Your task to perform on an android device: open the mobile data screen to see how much data has been used Image 0: 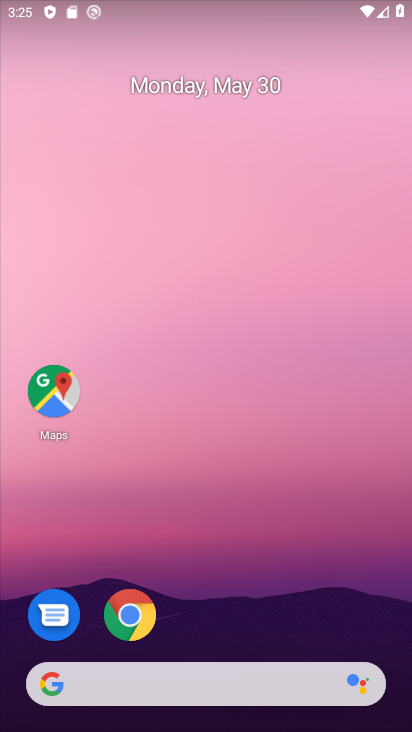
Step 0: drag from (257, 615) to (216, 147)
Your task to perform on an android device: open the mobile data screen to see how much data has been used Image 1: 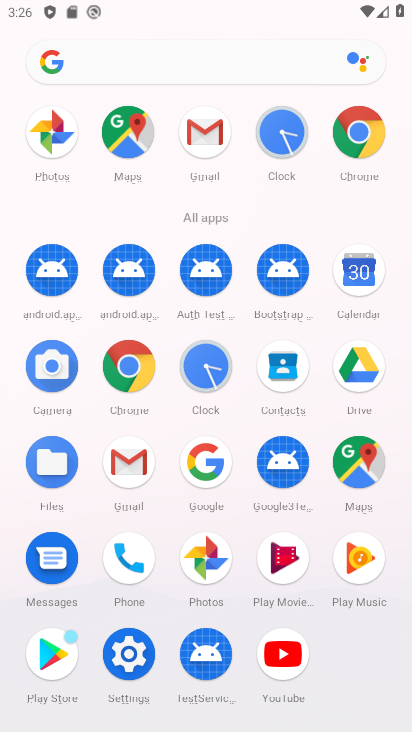
Step 1: drag from (244, 432) to (237, 150)
Your task to perform on an android device: open the mobile data screen to see how much data has been used Image 2: 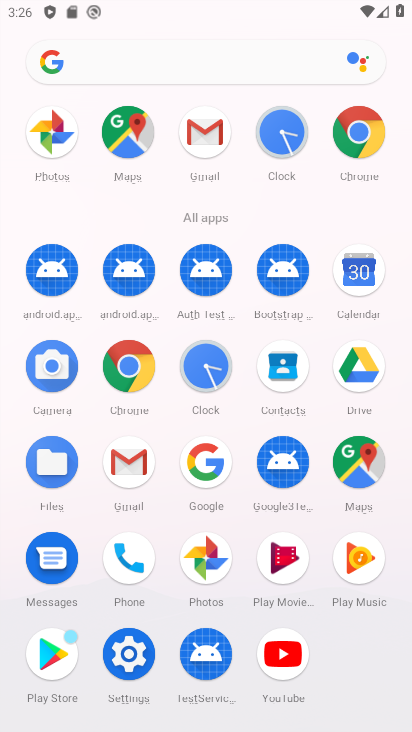
Step 2: click (130, 652)
Your task to perform on an android device: open the mobile data screen to see how much data has been used Image 3: 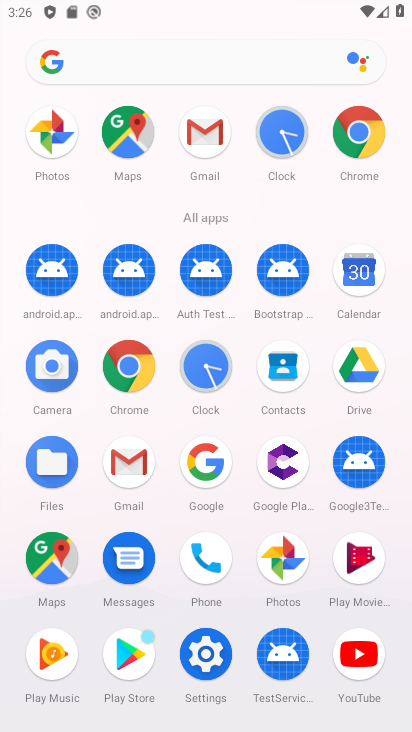
Step 3: drag from (238, 629) to (238, 454)
Your task to perform on an android device: open the mobile data screen to see how much data has been used Image 4: 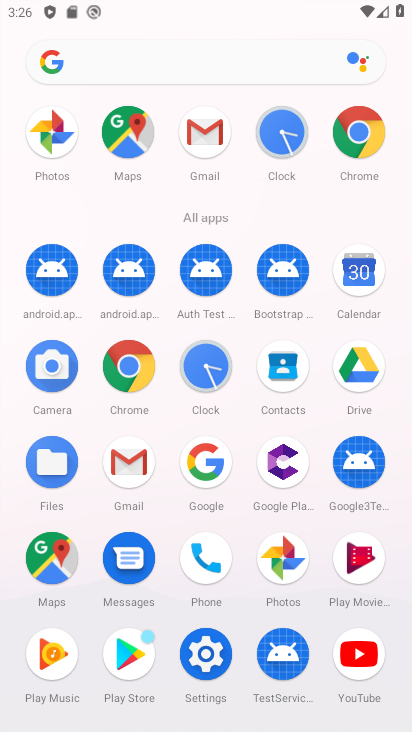
Step 4: click (208, 650)
Your task to perform on an android device: open the mobile data screen to see how much data has been used Image 5: 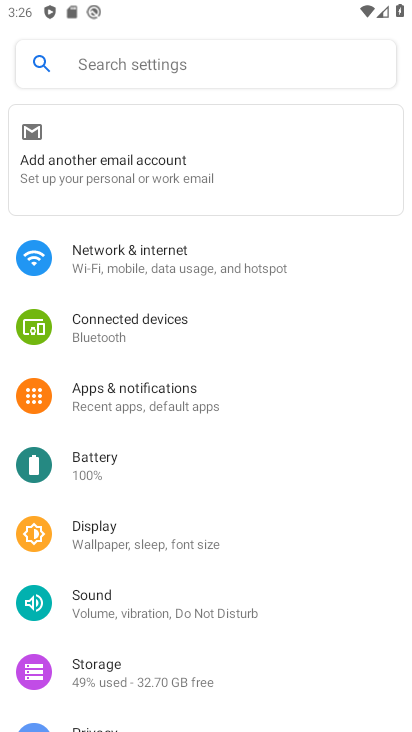
Step 5: click (186, 268)
Your task to perform on an android device: open the mobile data screen to see how much data has been used Image 6: 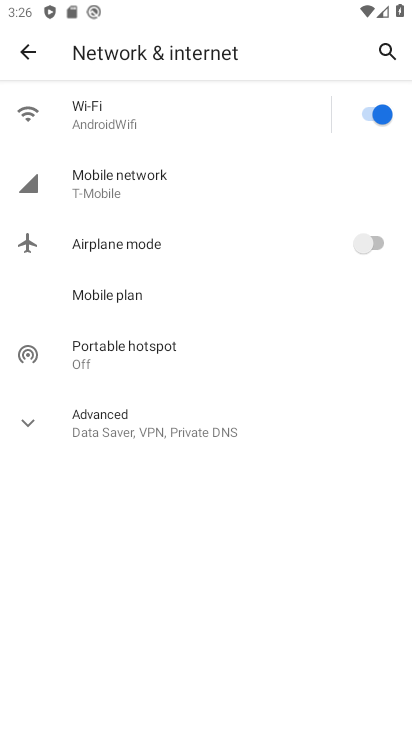
Step 6: click (114, 184)
Your task to perform on an android device: open the mobile data screen to see how much data has been used Image 7: 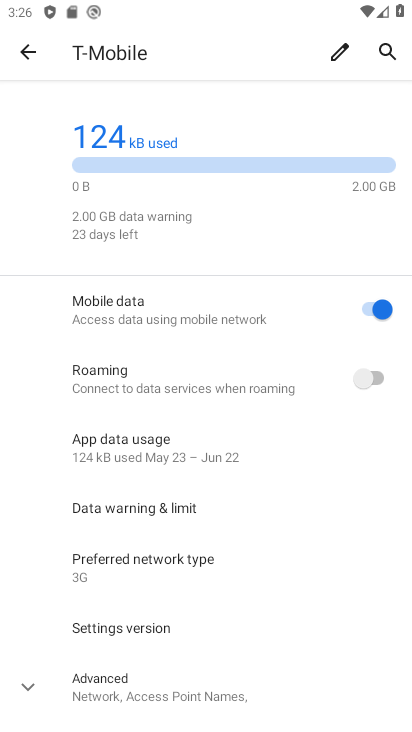
Step 7: task complete